Your task to perform on an android device: toggle translation in the chrome app Image 0: 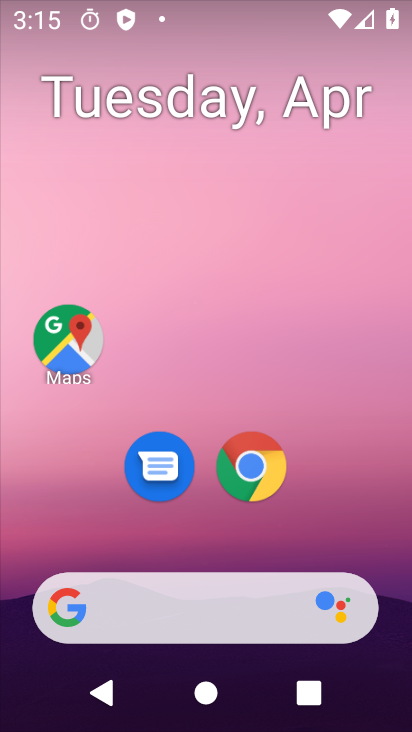
Step 0: drag from (215, 572) to (153, 50)
Your task to perform on an android device: toggle translation in the chrome app Image 1: 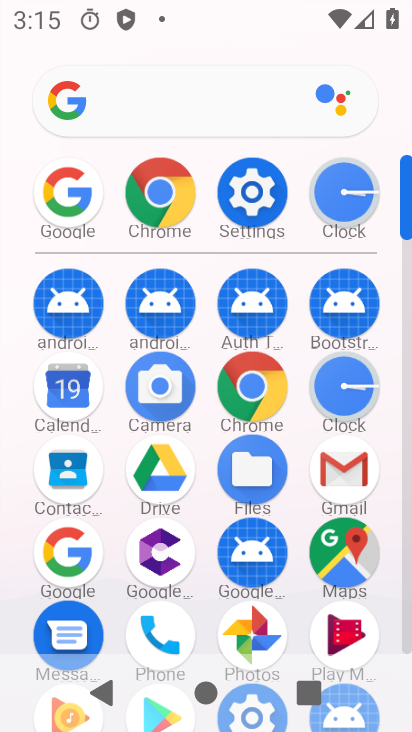
Step 1: click (252, 393)
Your task to perform on an android device: toggle translation in the chrome app Image 2: 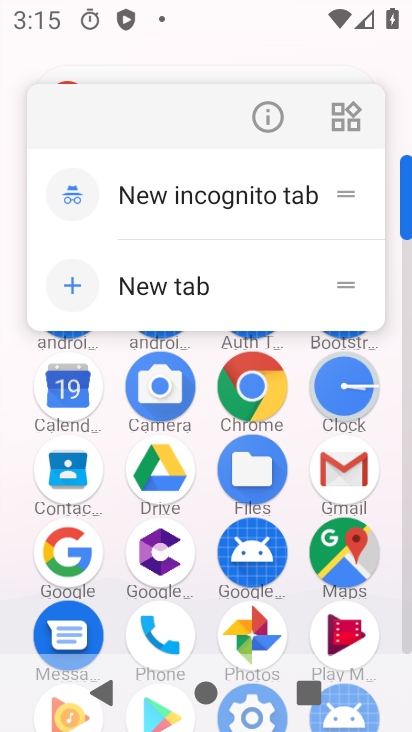
Step 2: click (261, 388)
Your task to perform on an android device: toggle translation in the chrome app Image 3: 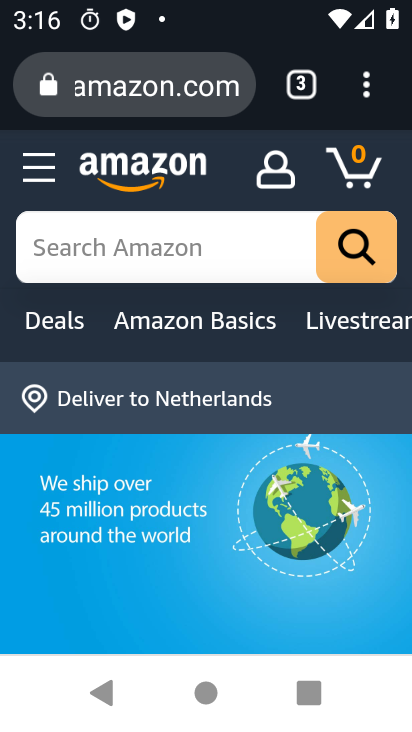
Step 3: drag from (363, 90) to (238, 539)
Your task to perform on an android device: toggle translation in the chrome app Image 4: 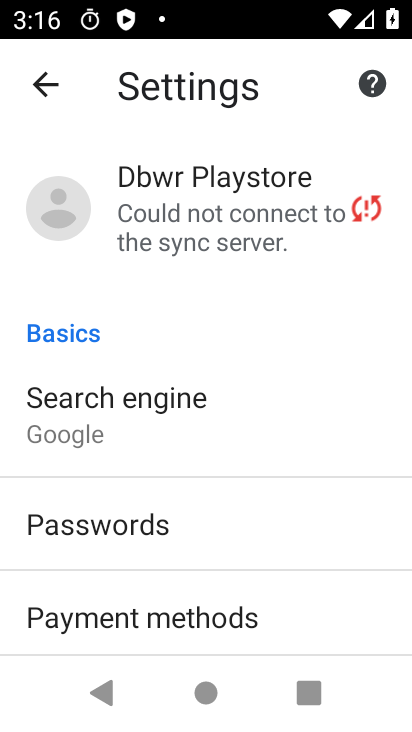
Step 4: drag from (231, 503) to (180, 86)
Your task to perform on an android device: toggle translation in the chrome app Image 5: 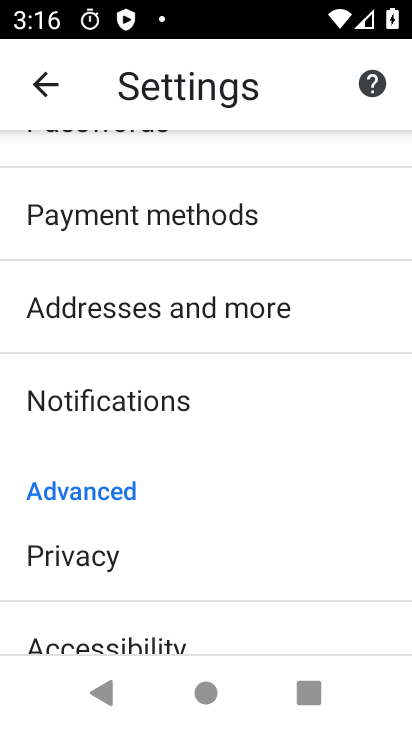
Step 5: drag from (168, 559) to (165, 113)
Your task to perform on an android device: toggle translation in the chrome app Image 6: 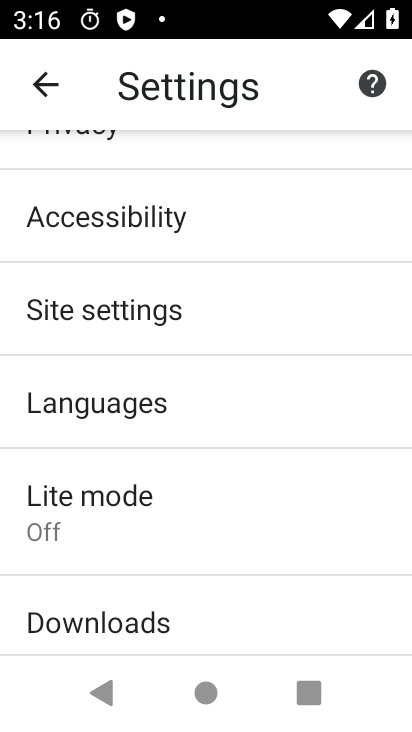
Step 6: click (105, 430)
Your task to perform on an android device: toggle translation in the chrome app Image 7: 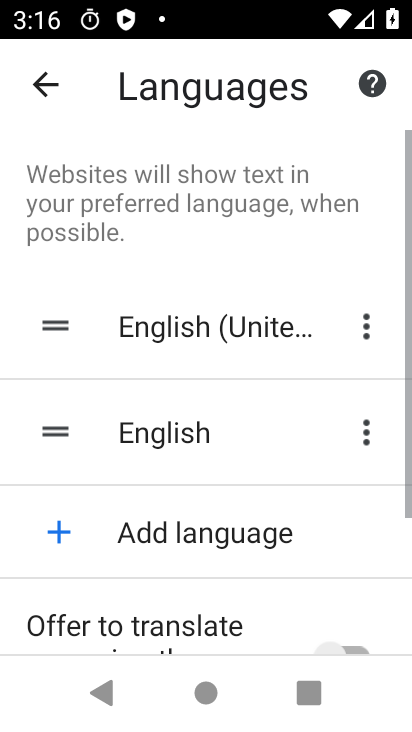
Step 7: drag from (151, 591) to (117, 250)
Your task to perform on an android device: toggle translation in the chrome app Image 8: 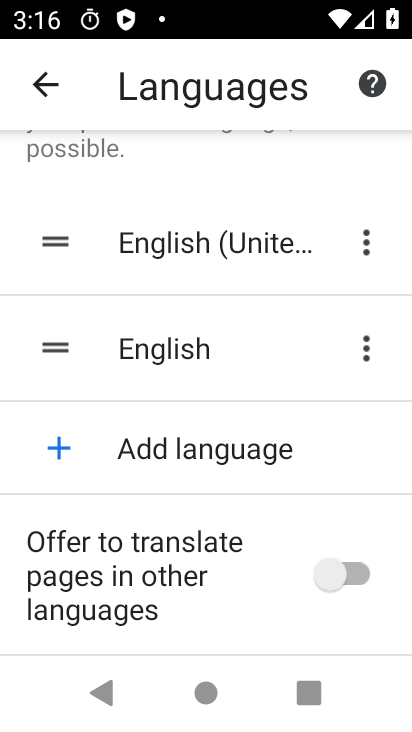
Step 8: click (348, 571)
Your task to perform on an android device: toggle translation in the chrome app Image 9: 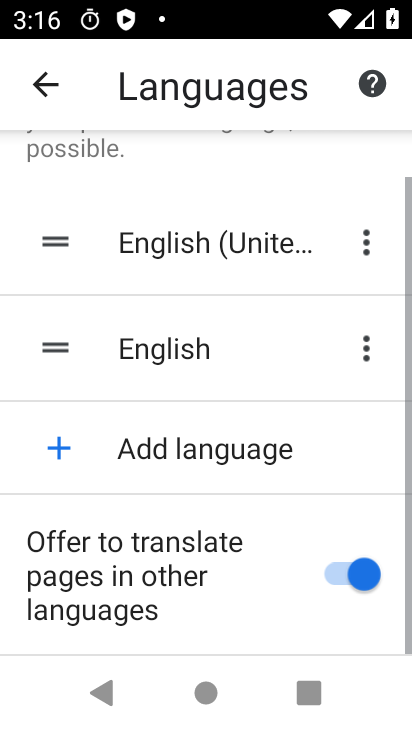
Step 9: task complete